Your task to perform on an android device: move a message to another label in the gmail app Image 0: 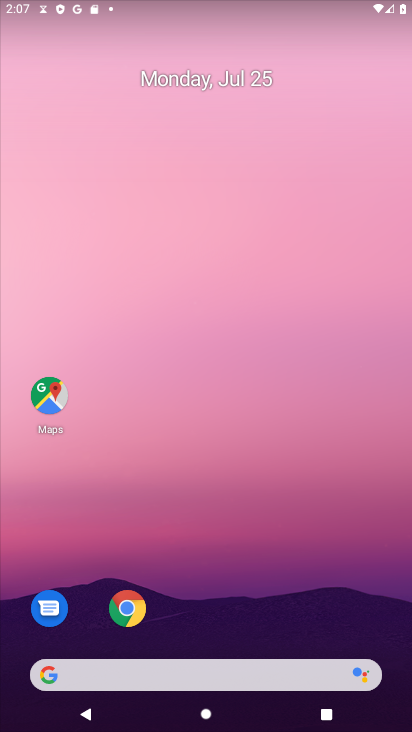
Step 0: drag from (168, 683) to (159, 205)
Your task to perform on an android device: move a message to another label in the gmail app Image 1: 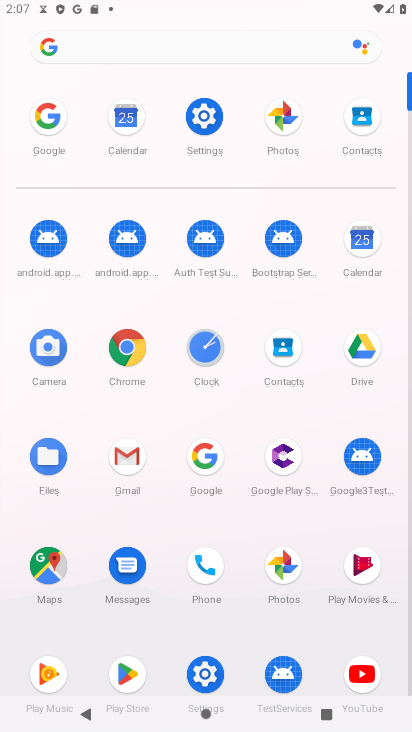
Step 1: click (124, 453)
Your task to perform on an android device: move a message to another label in the gmail app Image 2: 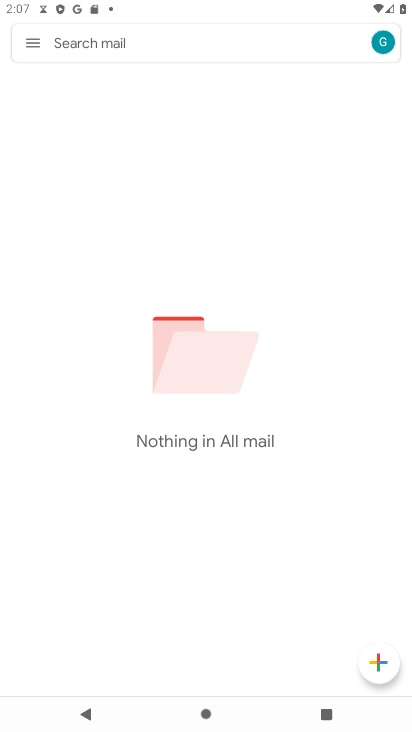
Step 2: click (34, 39)
Your task to perform on an android device: move a message to another label in the gmail app Image 3: 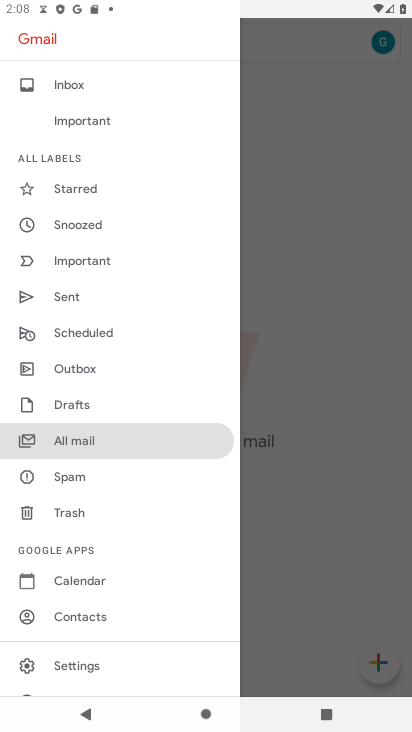
Step 3: click (78, 398)
Your task to perform on an android device: move a message to another label in the gmail app Image 4: 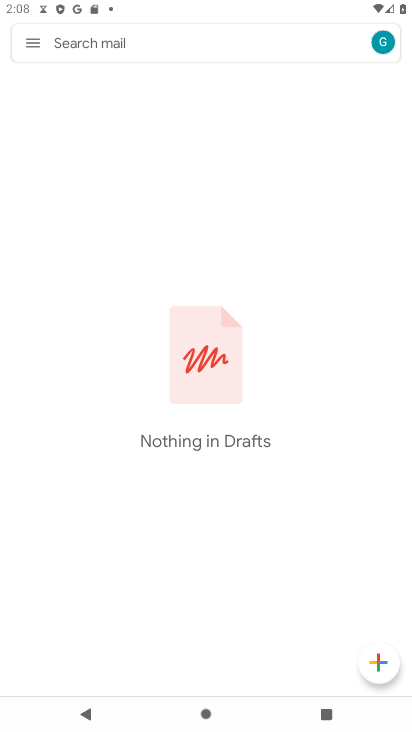
Step 4: task complete